Your task to perform on an android device: Open Yahoo.com Image 0: 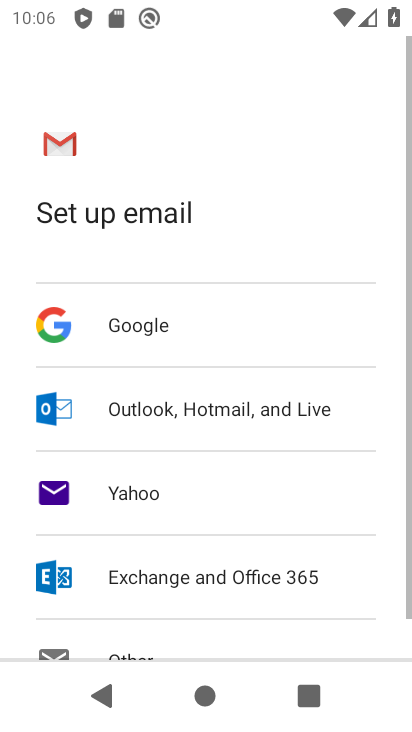
Step 0: press back button
Your task to perform on an android device: Open Yahoo.com Image 1: 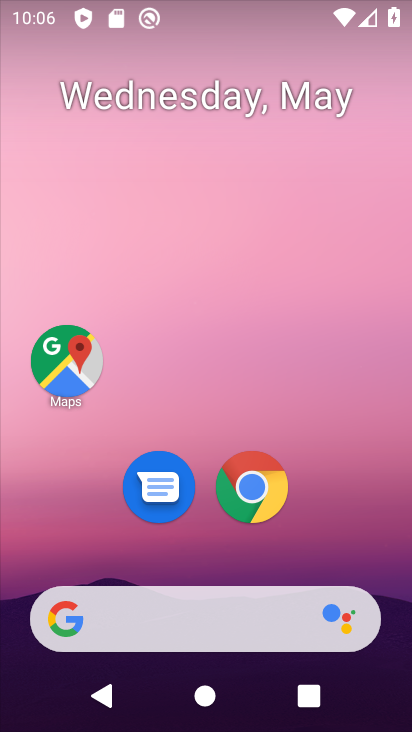
Step 1: drag from (391, 627) to (348, 28)
Your task to perform on an android device: Open Yahoo.com Image 2: 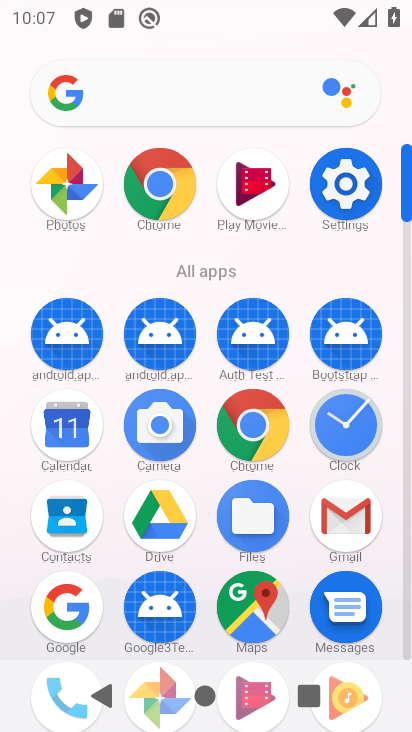
Step 2: click (244, 423)
Your task to perform on an android device: Open Yahoo.com Image 3: 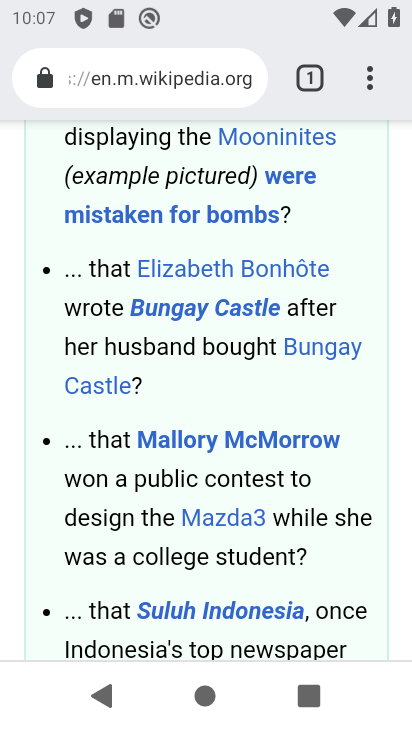
Step 3: click (192, 74)
Your task to perform on an android device: Open Yahoo.com Image 4: 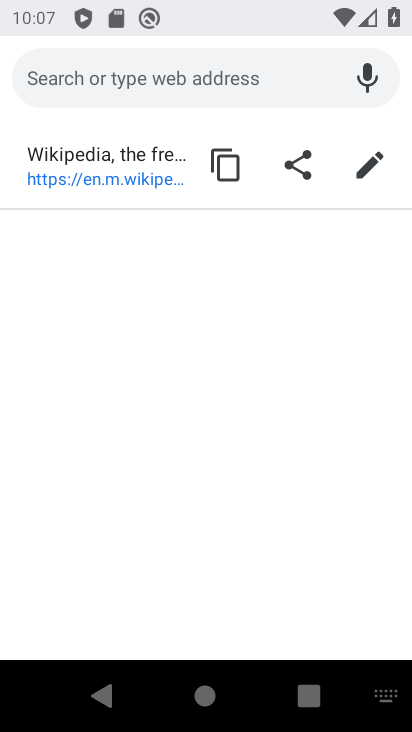
Step 4: type " Yahoo.com"
Your task to perform on an android device: Open Yahoo.com Image 5: 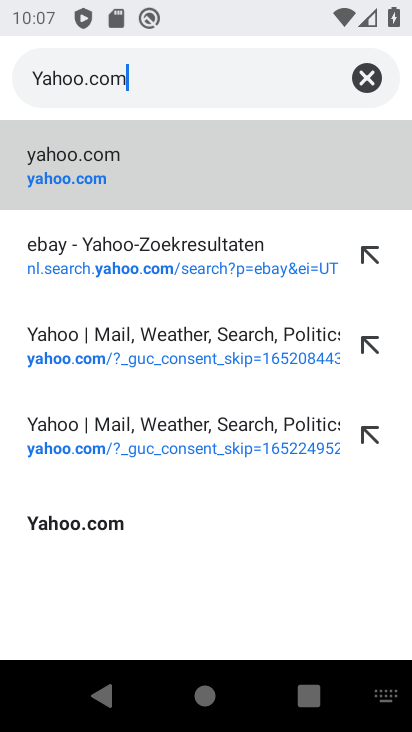
Step 5: type ""
Your task to perform on an android device: Open Yahoo.com Image 6: 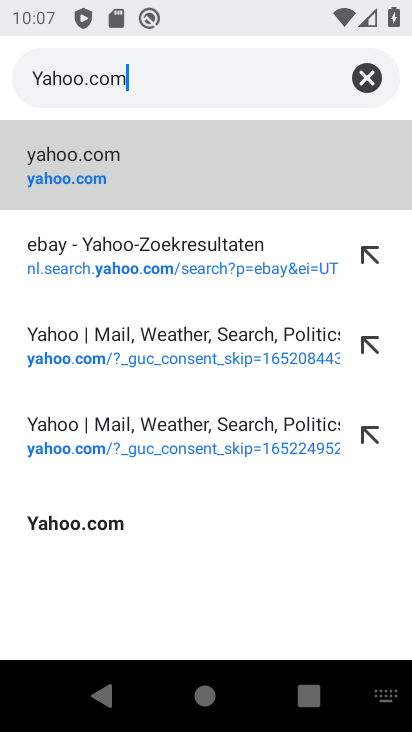
Step 6: click (231, 150)
Your task to perform on an android device: Open Yahoo.com Image 7: 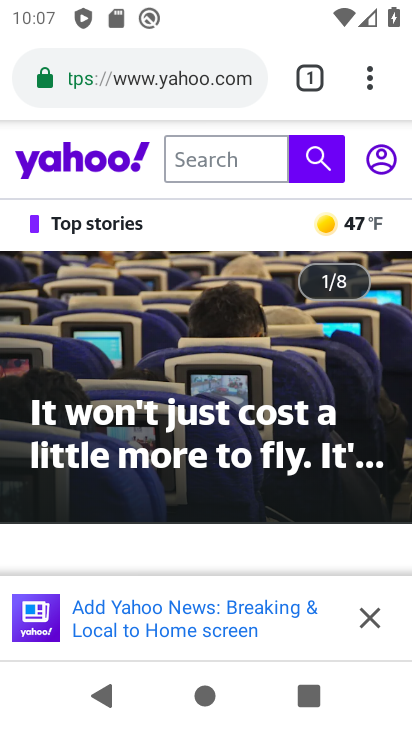
Step 7: task complete